Your task to perform on an android device: Open Amazon Image 0: 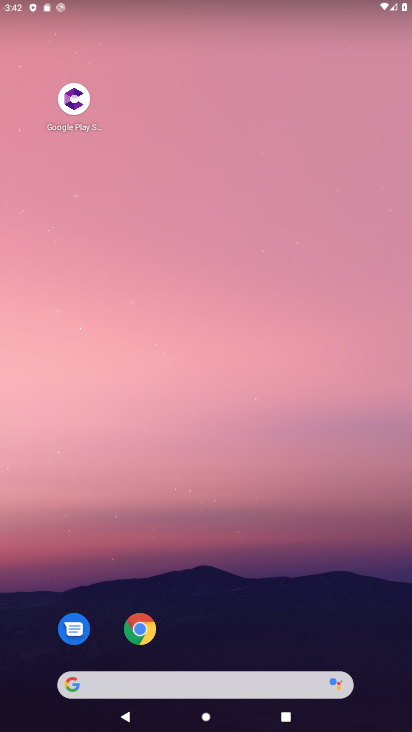
Step 0: click (145, 629)
Your task to perform on an android device: Open Amazon Image 1: 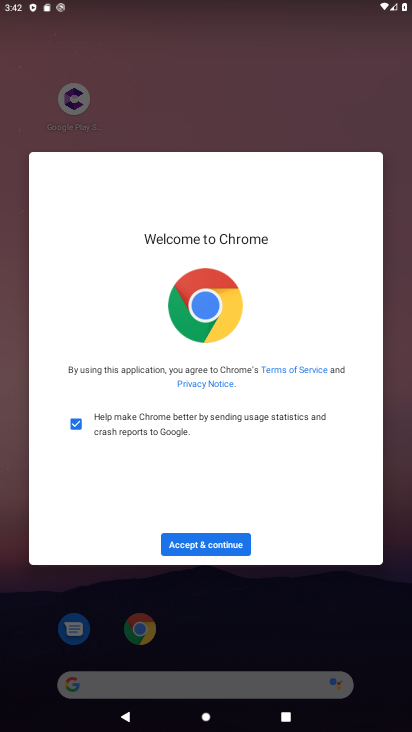
Step 1: click (202, 541)
Your task to perform on an android device: Open Amazon Image 2: 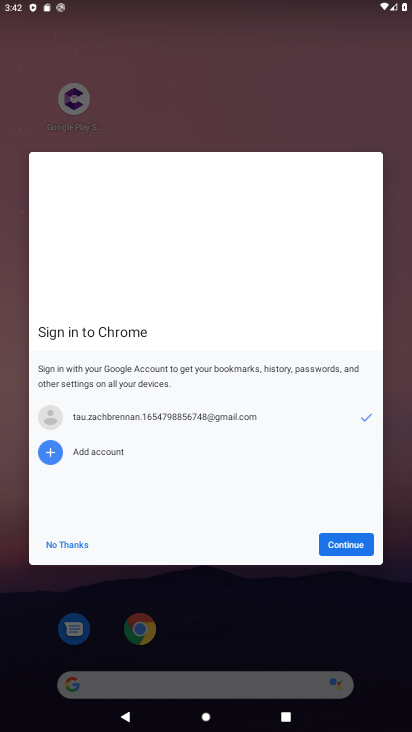
Step 2: click (337, 542)
Your task to perform on an android device: Open Amazon Image 3: 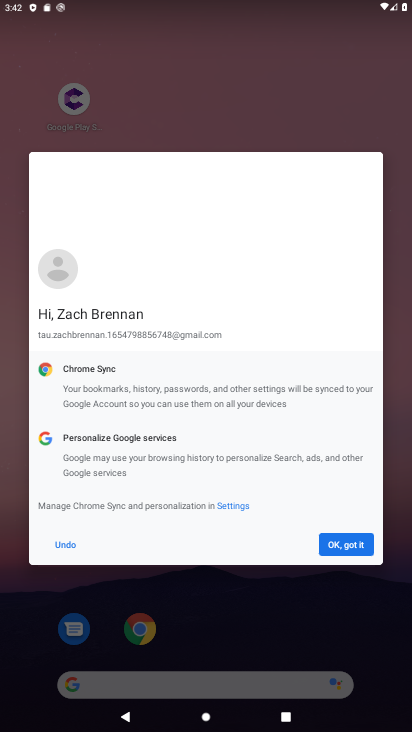
Step 3: click (337, 542)
Your task to perform on an android device: Open Amazon Image 4: 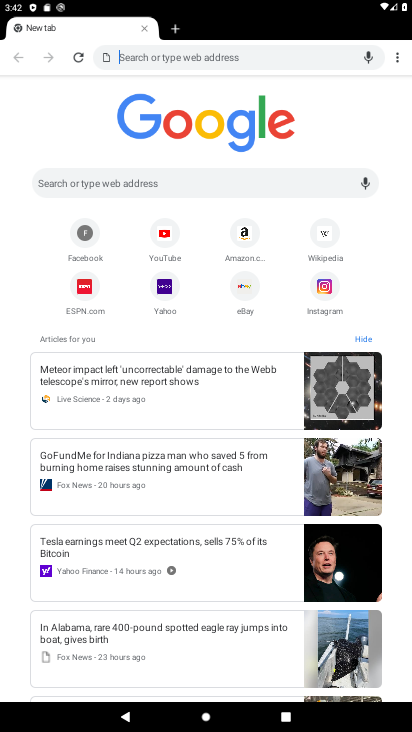
Step 4: click (248, 236)
Your task to perform on an android device: Open Amazon Image 5: 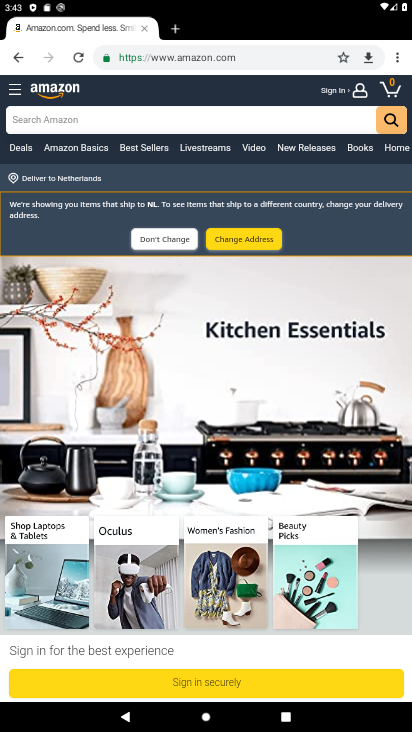
Step 5: task complete